Your task to perform on an android device: Open Google Chrome and open the bookmarks view Image 0: 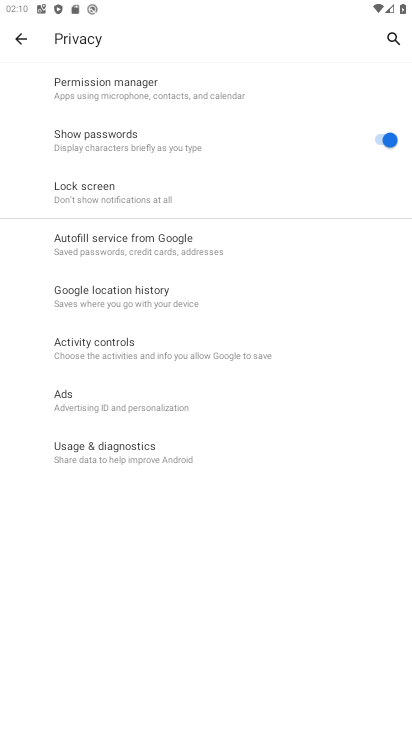
Step 0: press home button
Your task to perform on an android device: Open Google Chrome and open the bookmarks view Image 1: 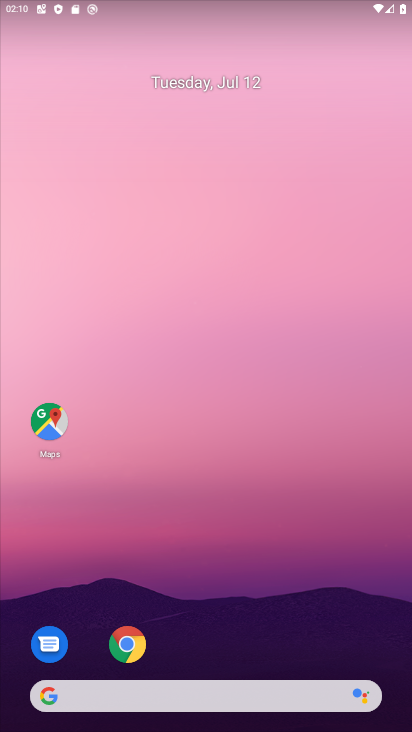
Step 1: drag from (214, 659) to (175, 181)
Your task to perform on an android device: Open Google Chrome and open the bookmarks view Image 2: 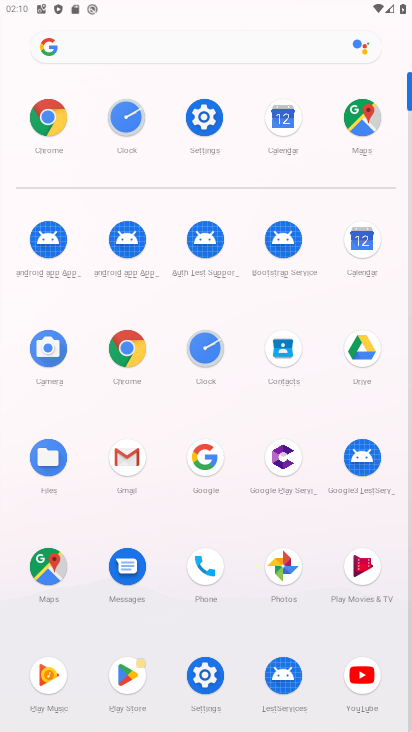
Step 2: click (131, 350)
Your task to perform on an android device: Open Google Chrome and open the bookmarks view Image 3: 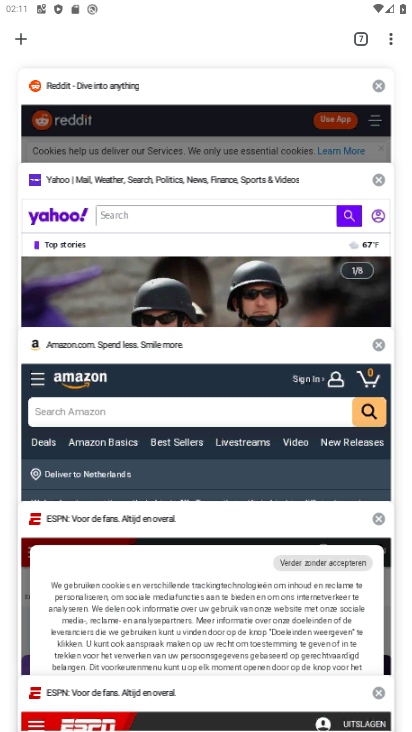
Step 3: drag from (389, 34) to (282, 148)
Your task to perform on an android device: Open Google Chrome and open the bookmarks view Image 4: 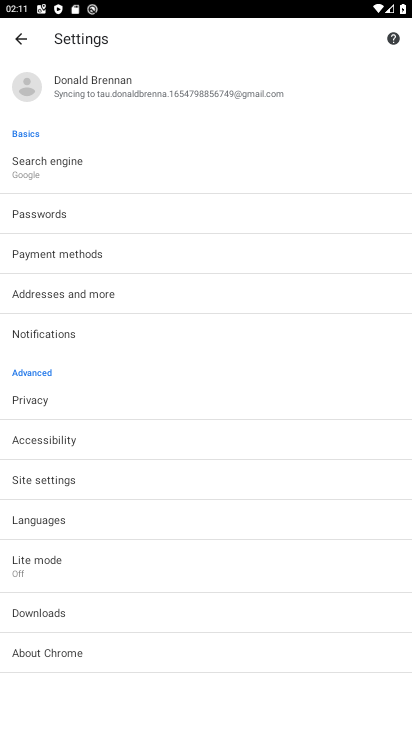
Step 4: click (19, 38)
Your task to perform on an android device: Open Google Chrome and open the bookmarks view Image 5: 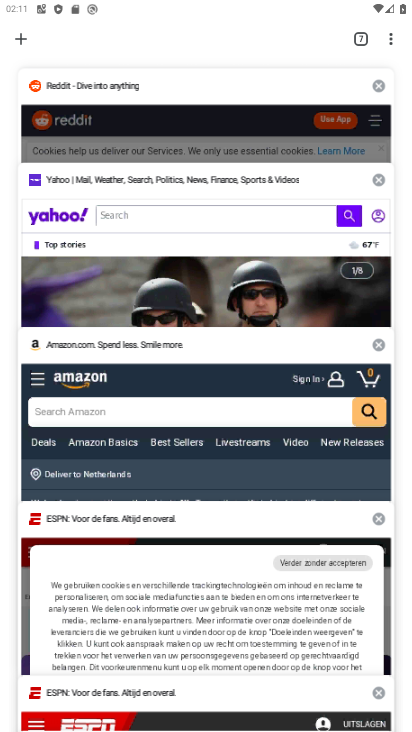
Step 5: click (11, 43)
Your task to perform on an android device: Open Google Chrome and open the bookmarks view Image 6: 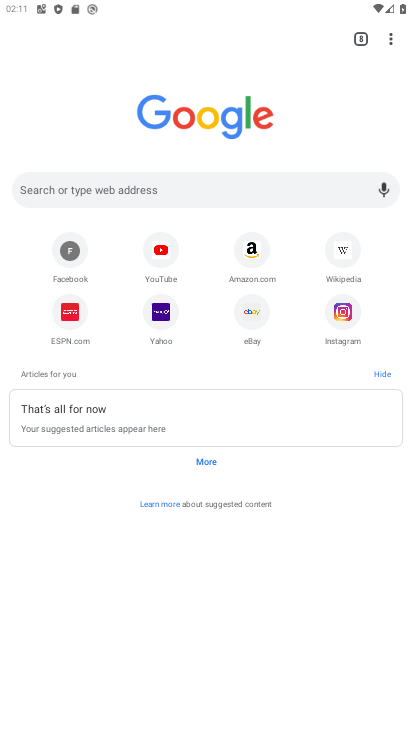
Step 6: task complete